Your task to perform on an android device: turn pop-ups on in chrome Image 0: 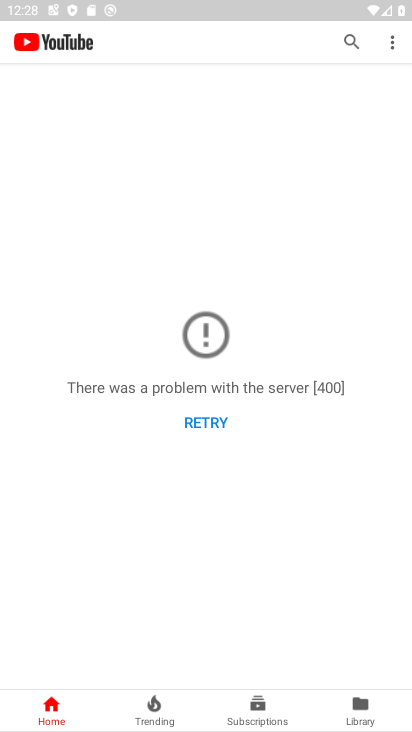
Step 0: press home button
Your task to perform on an android device: turn pop-ups on in chrome Image 1: 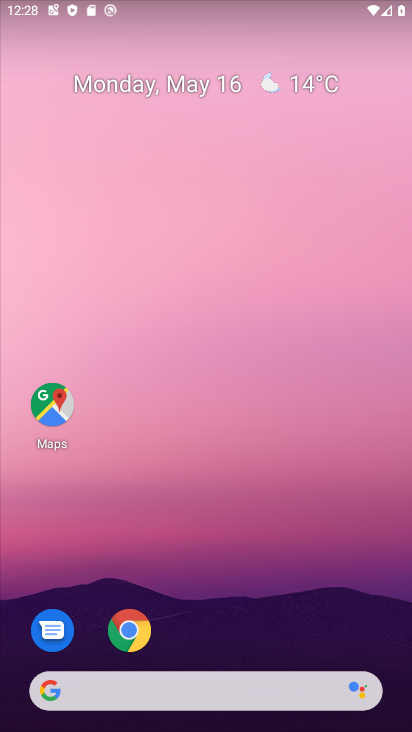
Step 1: click (129, 632)
Your task to perform on an android device: turn pop-ups on in chrome Image 2: 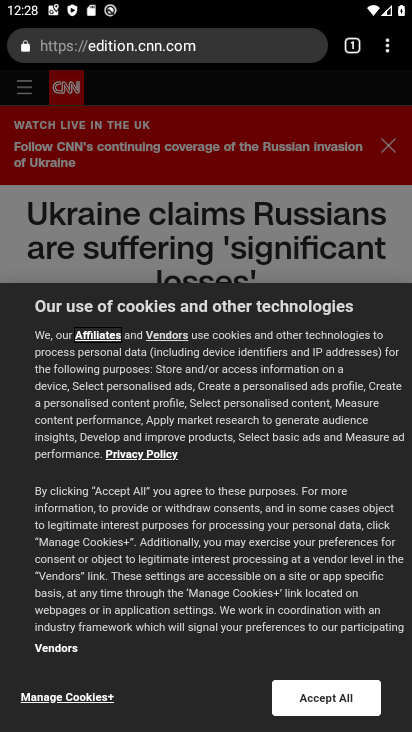
Step 2: click (392, 51)
Your task to perform on an android device: turn pop-ups on in chrome Image 3: 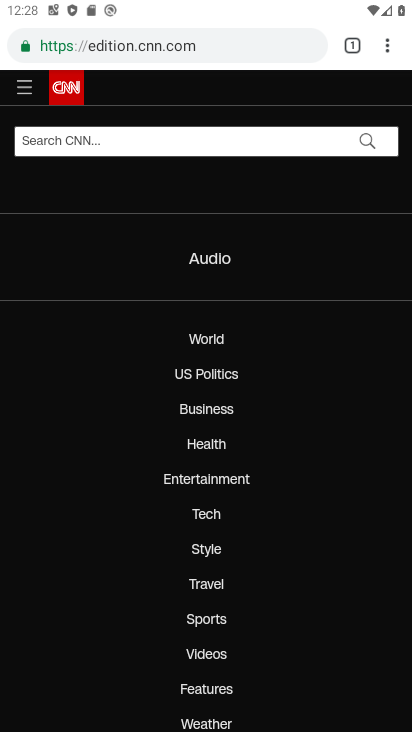
Step 3: click (392, 37)
Your task to perform on an android device: turn pop-ups on in chrome Image 4: 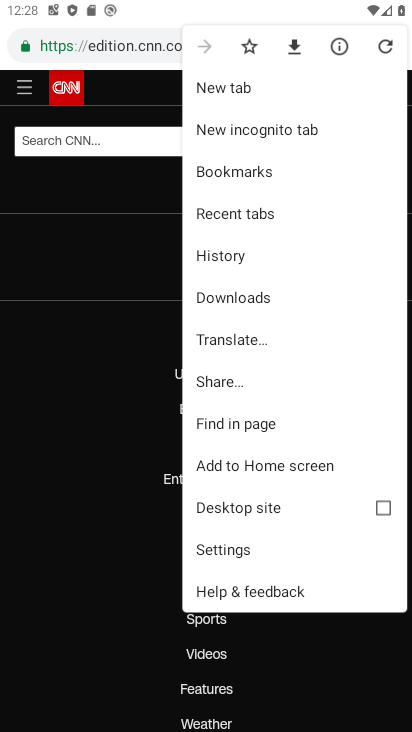
Step 4: click (272, 555)
Your task to perform on an android device: turn pop-ups on in chrome Image 5: 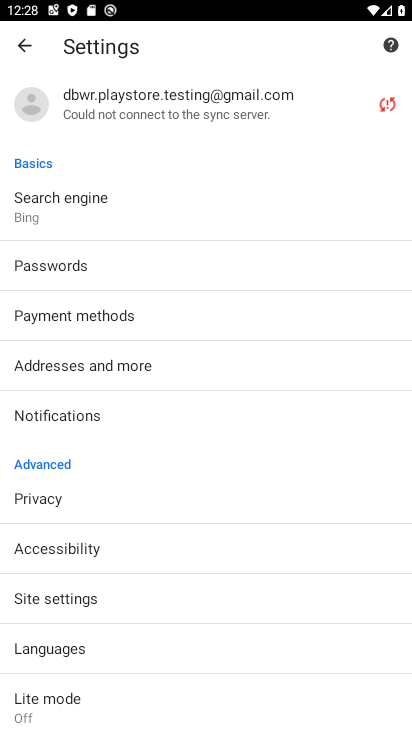
Step 5: click (155, 591)
Your task to perform on an android device: turn pop-ups on in chrome Image 6: 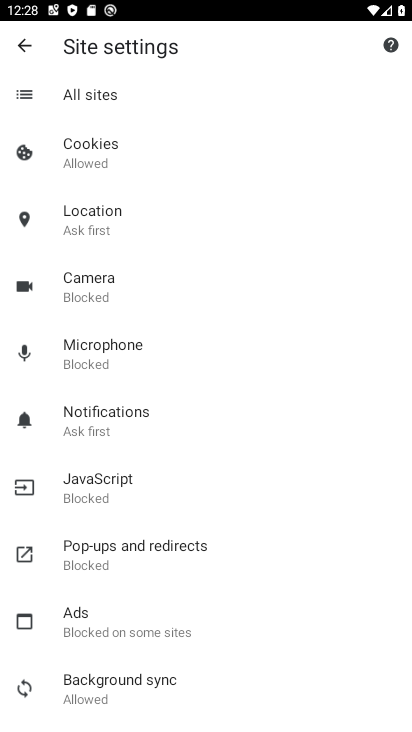
Step 6: click (175, 556)
Your task to perform on an android device: turn pop-ups on in chrome Image 7: 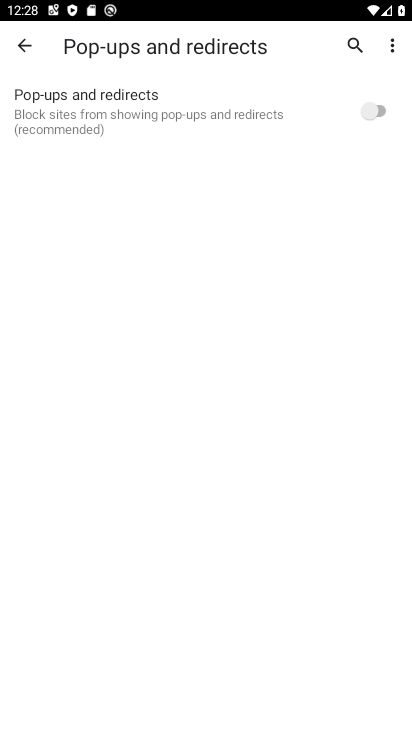
Step 7: click (379, 106)
Your task to perform on an android device: turn pop-ups on in chrome Image 8: 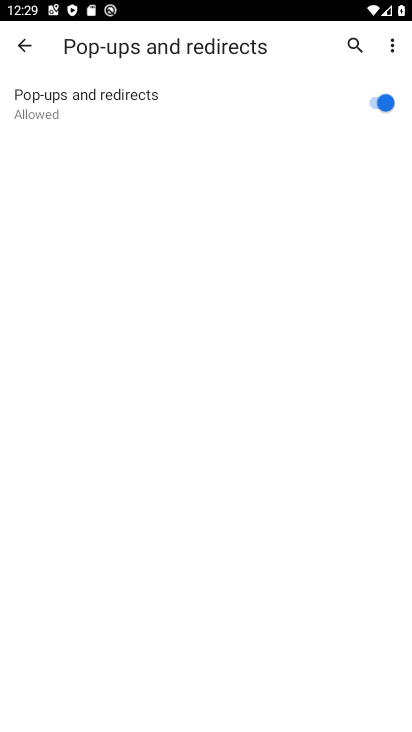
Step 8: task complete